Your task to perform on an android device: Add "alienware area 51" to the cart on costco.com Image 0: 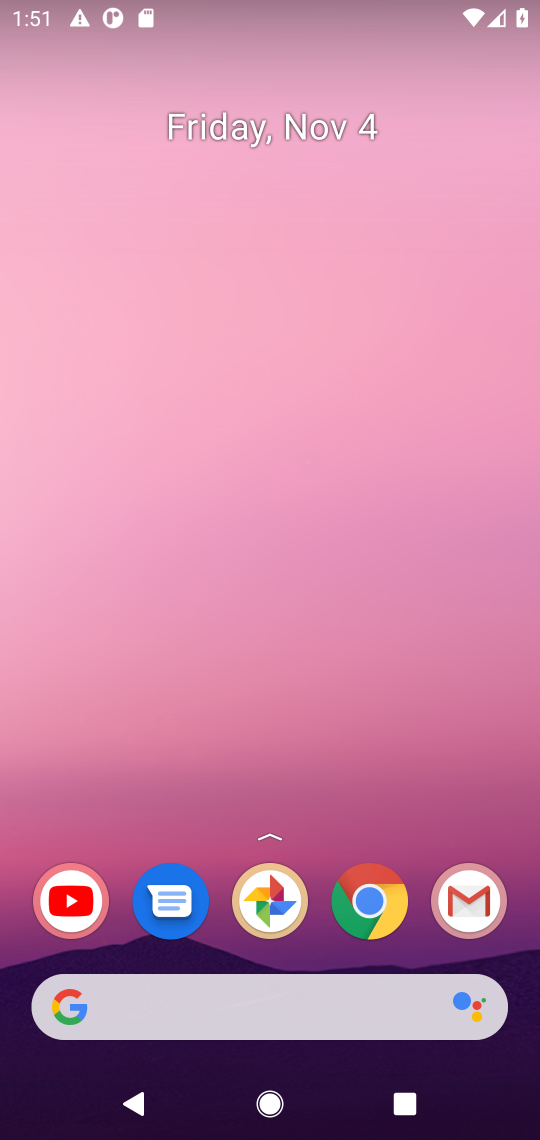
Step 0: click (365, 892)
Your task to perform on an android device: Add "alienware area 51" to the cart on costco.com Image 1: 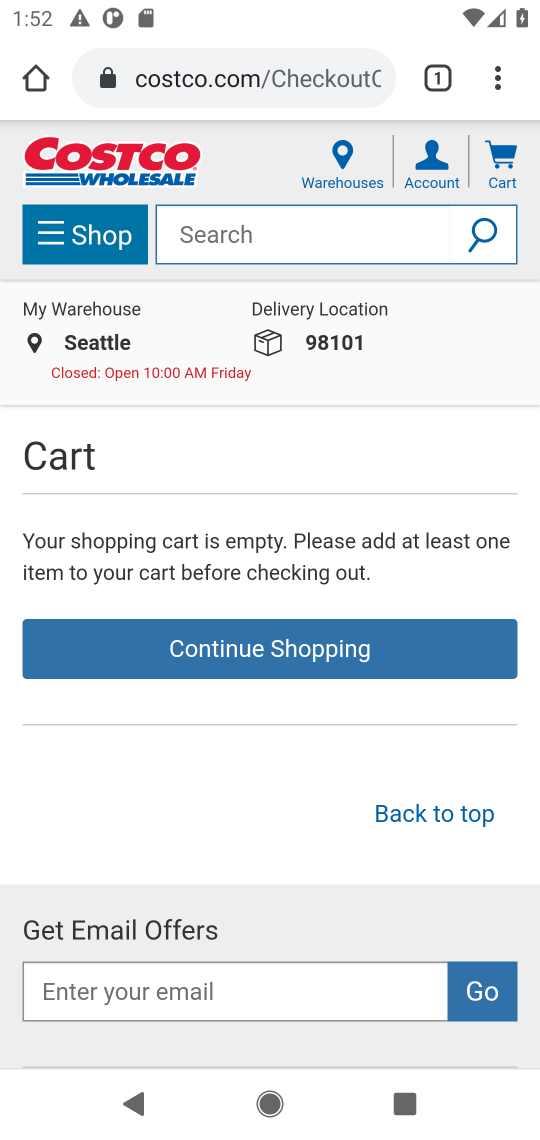
Step 1: click (308, 238)
Your task to perform on an android device: Add "alienware area 51" to the cart on costco.com Image 2: 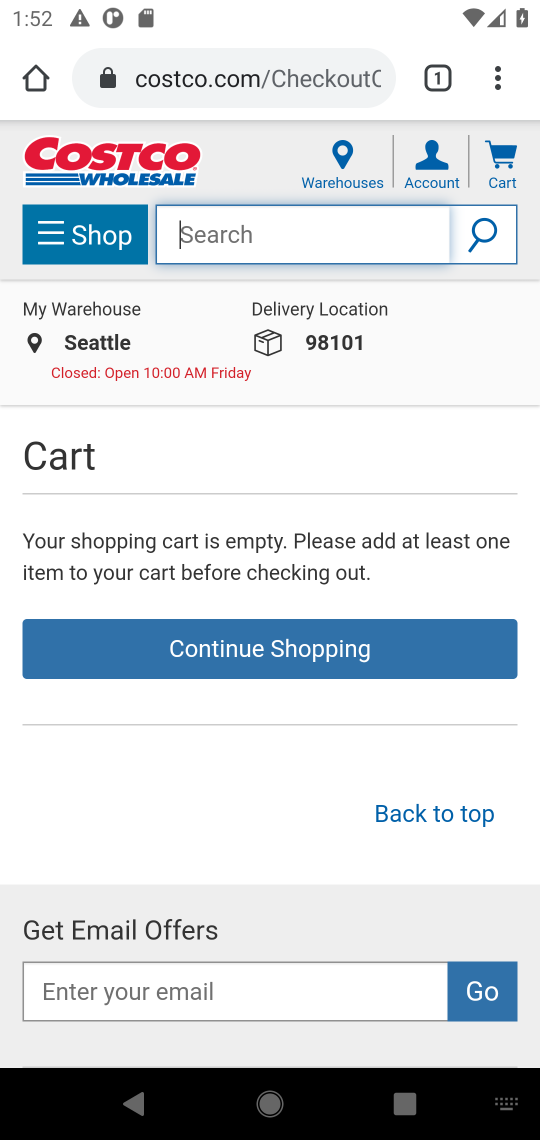
Step 2: type "alienware area 51"
Your task to perform on an android device: Add "alienware area 51" to the cart on costco.com Image 3: 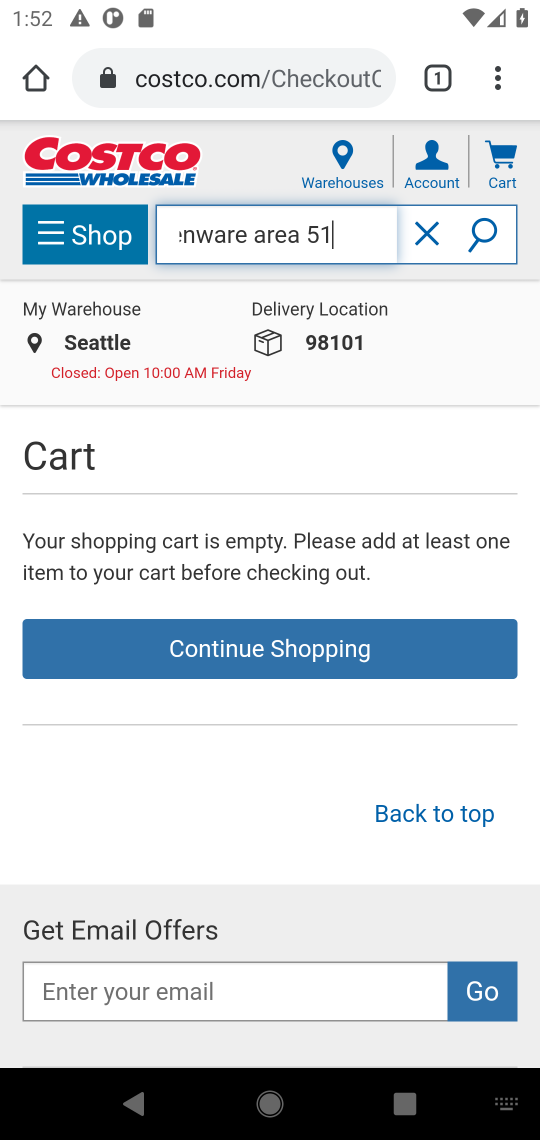
Step 3: press enter
Your task to perform on an android device: Add "alienware area 51" to the cart on costco.com Image 4: 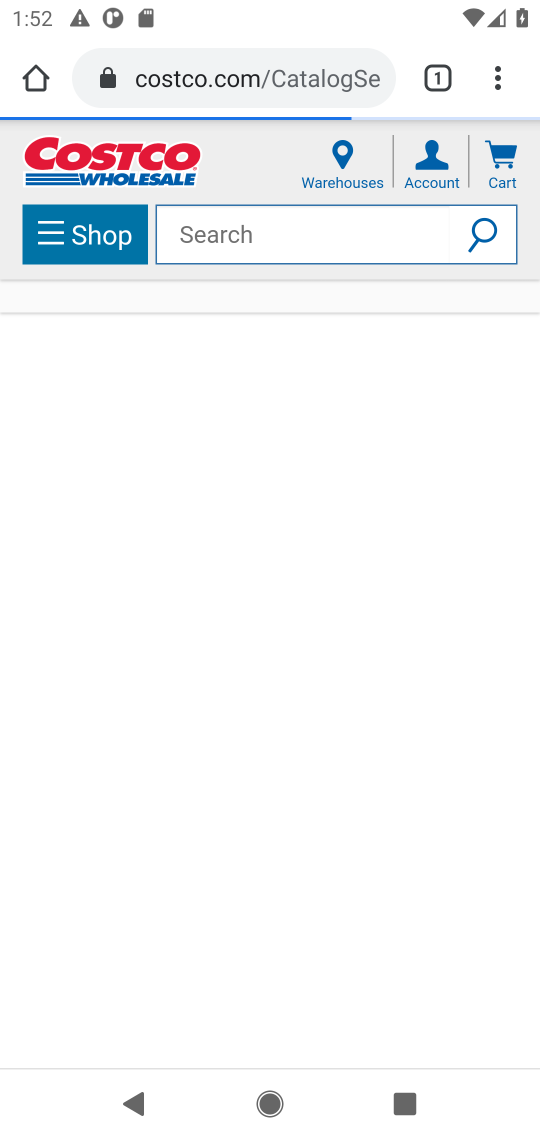
Step 4: click (489, 329)
Your task to perform on an android device: Add "alienware area 51" to the cart on costco.com Image 5: 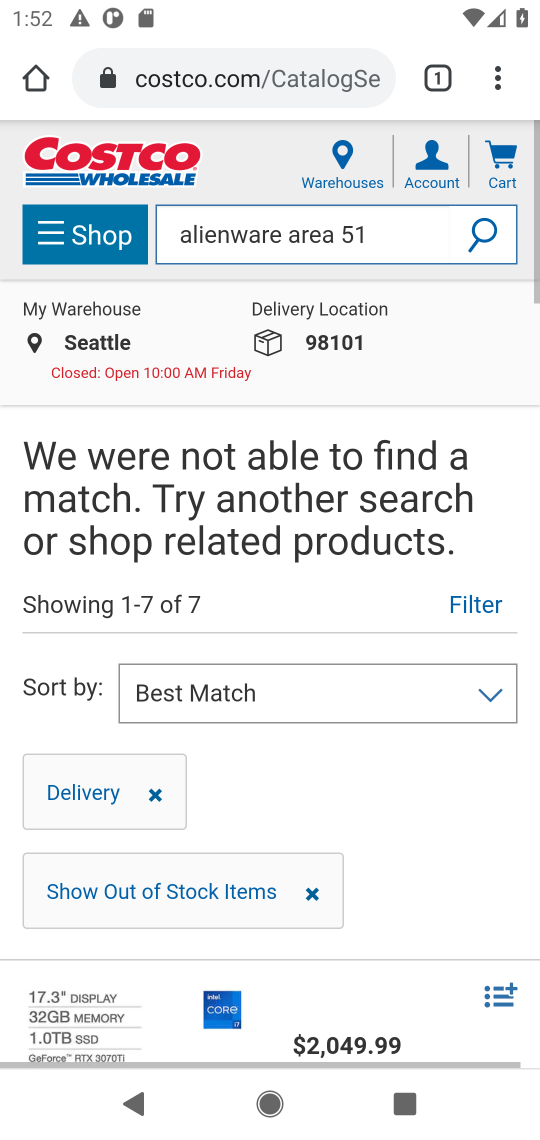
Step 5: task complete